Your task to perform on an android device: Is it going to rain today? Image 0: 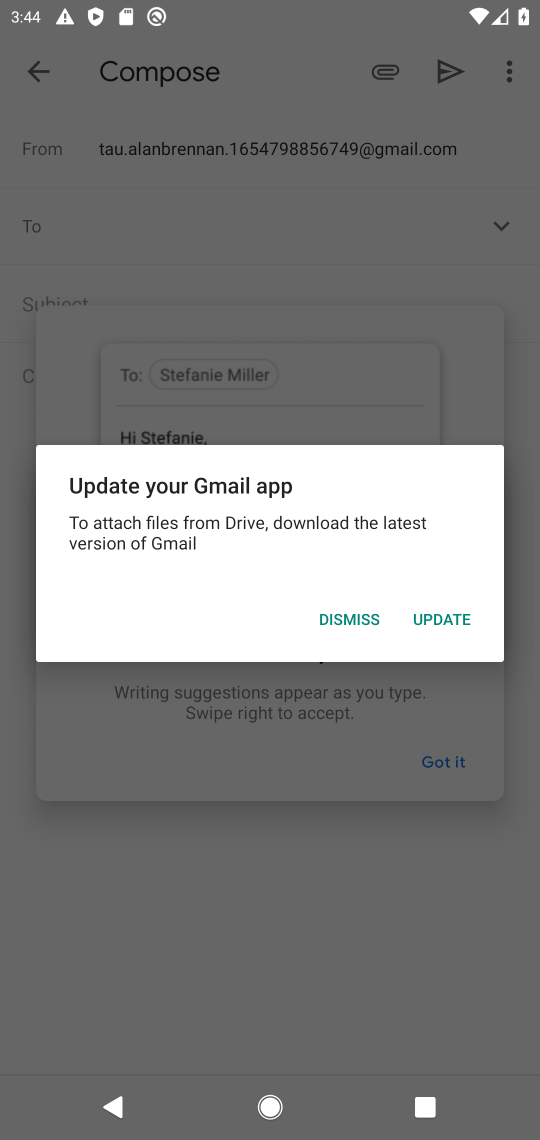
Step 0: press home button
Your task to perform on an android device: Is it going to rain today? Image 1: 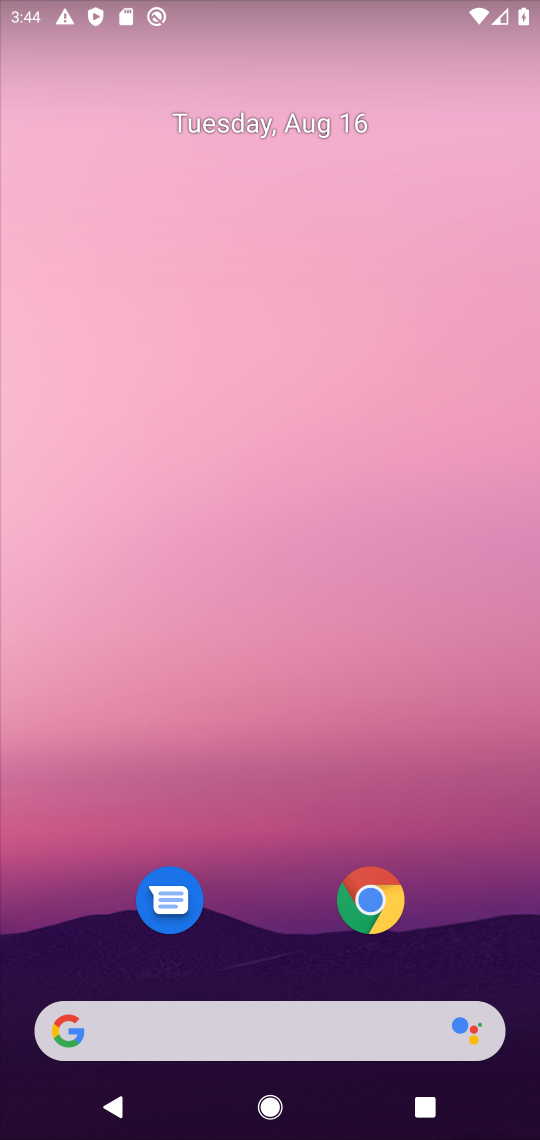
Step 1: click (257, 1039)
Your task to perform on an android device: Is it going to rain today? Image 2: 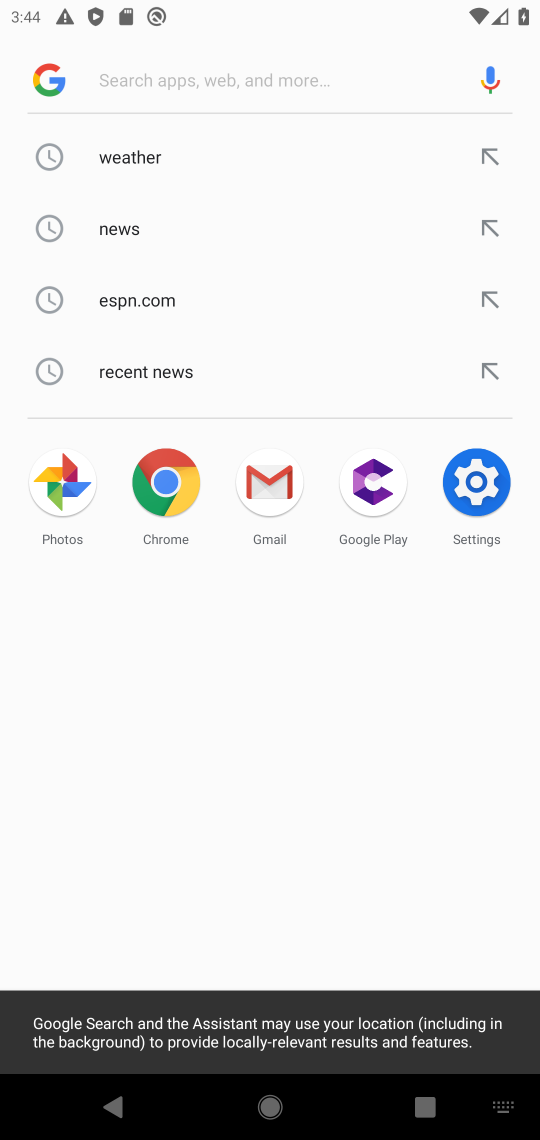
Step 2: click (140, 145)
Your task to perform on an android device: Is it going to rain today? Image 3: 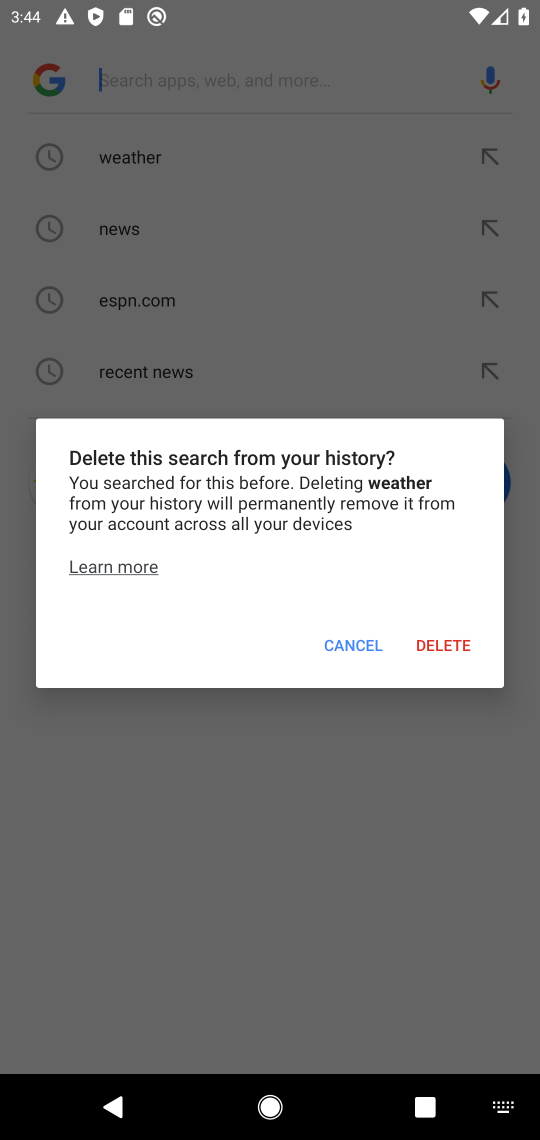
Step 3: click (336, 645)
Your task to perform on an android device: Is it going to rain today? Image 4: 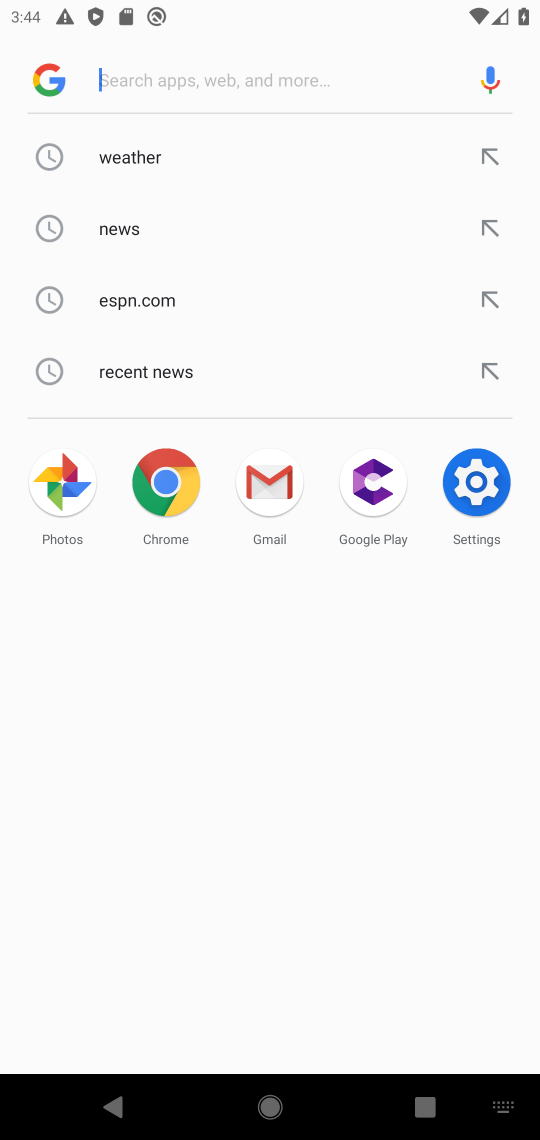
Step 4: click (96, 167)
Your task to perform on an android device: Is it going to rain today? Image 5: 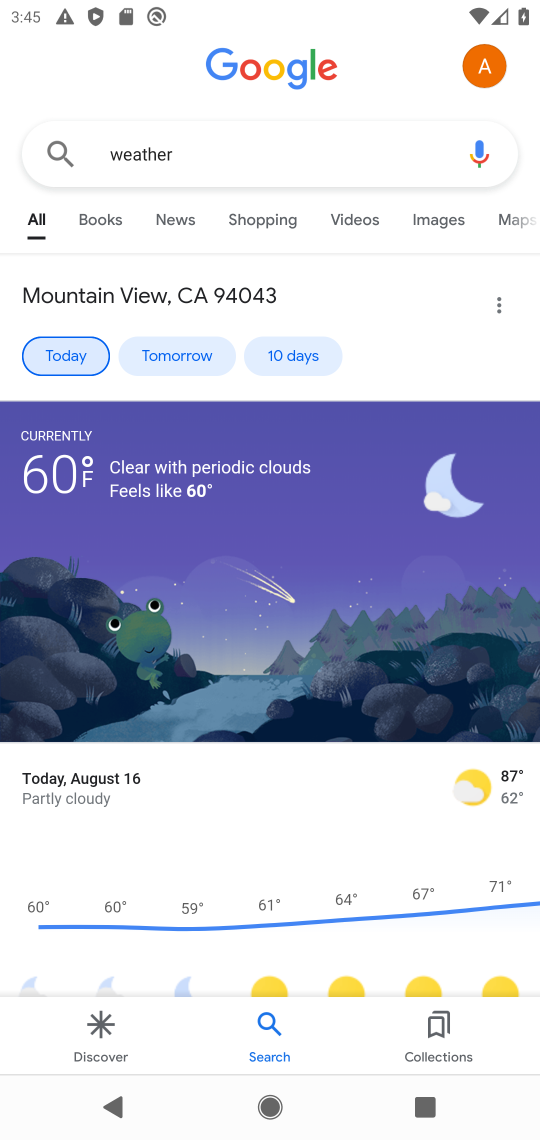
Step 5: task complete